Your task to perform on an android device: Open Chrome and go to settings Image 0: 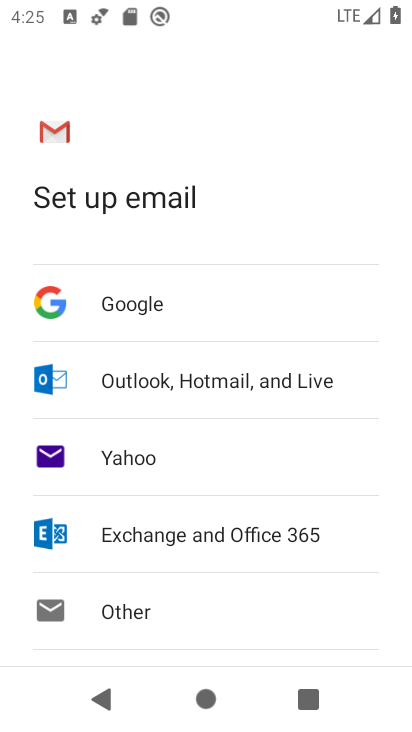
Step 0: press home button
Your task to perform on an android device: Open Chrome and go to settings Image 1: 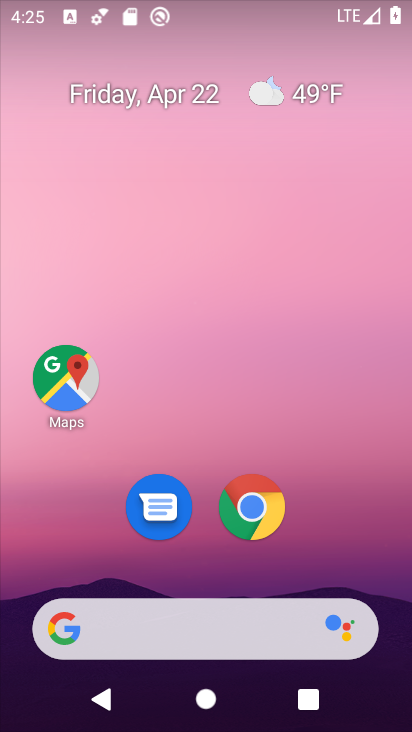
Step 1: click (246, 503)
Your task to perform on an android device: Open Chrome and go to settings Image 2: 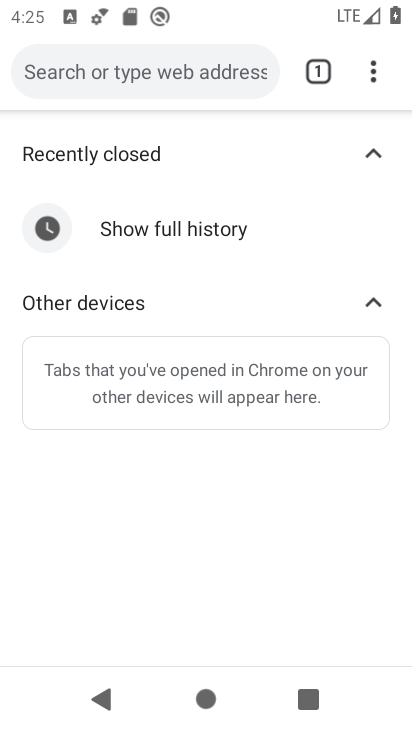
Step 2: click (370, 73)
Your task to perform on an android device: Open Chrome and go to settings Image 3: 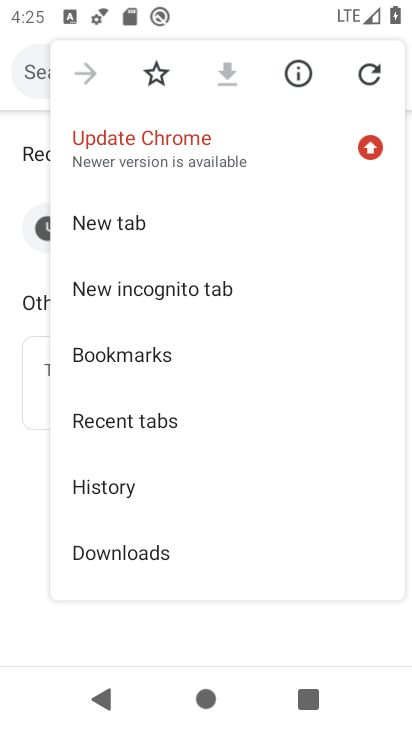
Step 3: drag from (218, 568) to (268, 223)
Your task to perform on an android device: Open Chrome and go to settings Image 4: 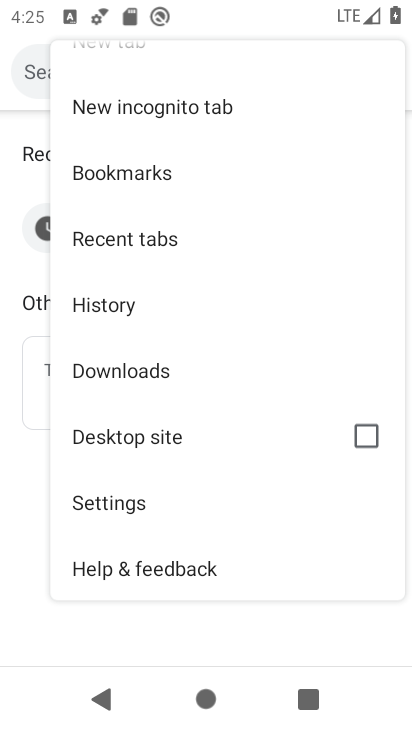
Step 4: click (100, 505)
Your task to perform on an android device: Open Chrome and go to settings Image 5: 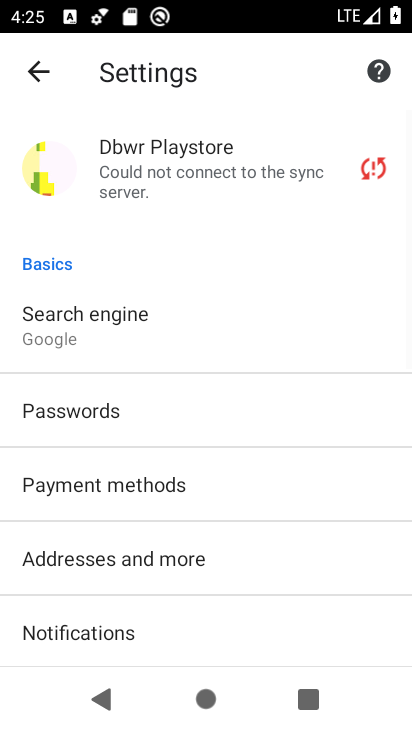
Step 5: task complete